Your task to perform on an android device: Clear the shopping cart on ebay.com. Add "asus rog" to the cart on ebay.com Image 0: 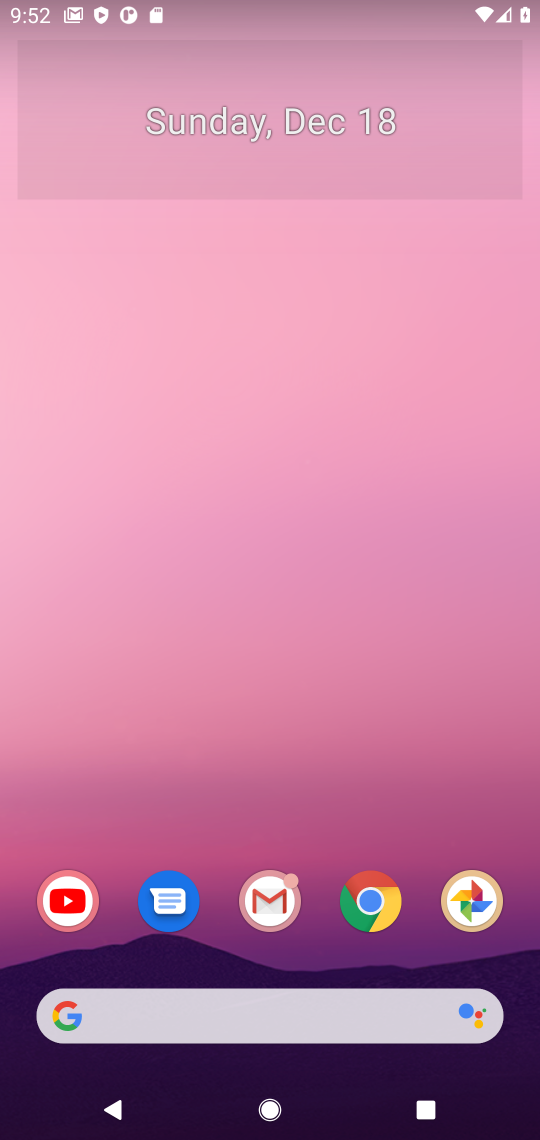
Step 0: click (391, 892)
Your task to perform on an android device: Clear the shopping cart on ebay.com. Add "asus rog" to the cart on ebay.com Image 1: 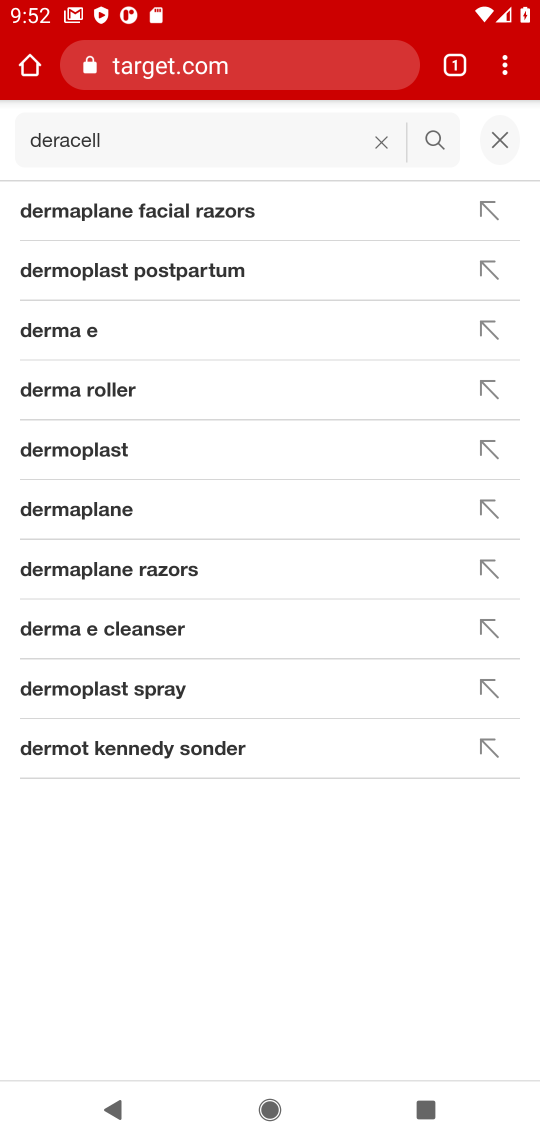
Step 1: click (234, 69)
Your task to perform on an android device: Clear the shopping cart on ebay.com. Add "asus rog" to the cart on ebay.com Image 2: 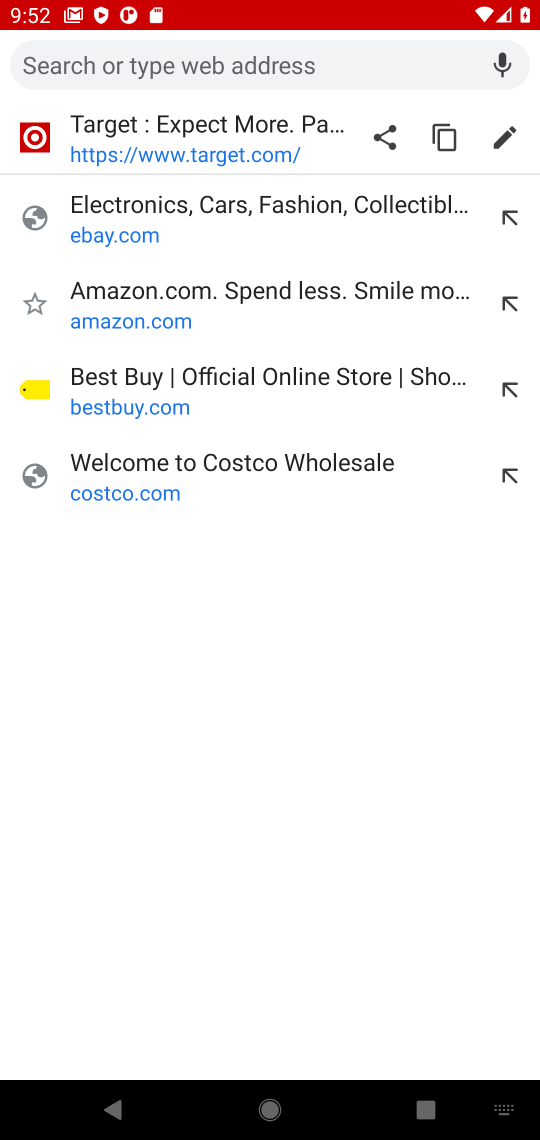
Step 2: click (198, 253)
Your task to perform on an android device: Clear the shopping cart on ebay.com. Add "asus rog" to the cart on ebay.com Image 3: 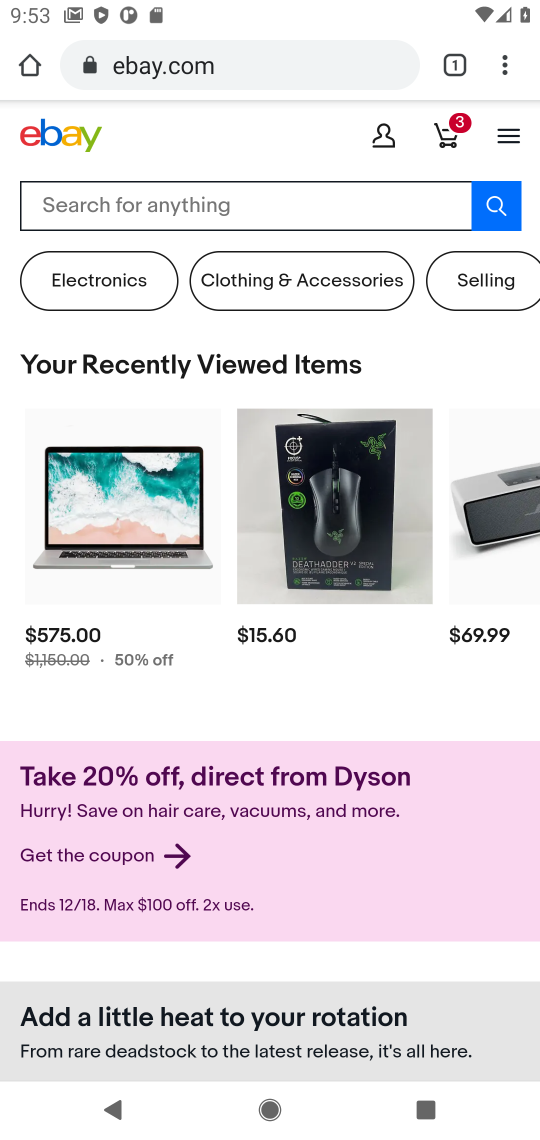
Step 3: click (447, 130)
Your task to perform on an android device: Clear the shopping cart on ebay.com. Add "asus rog" to the cart on ebay.com Image 4: 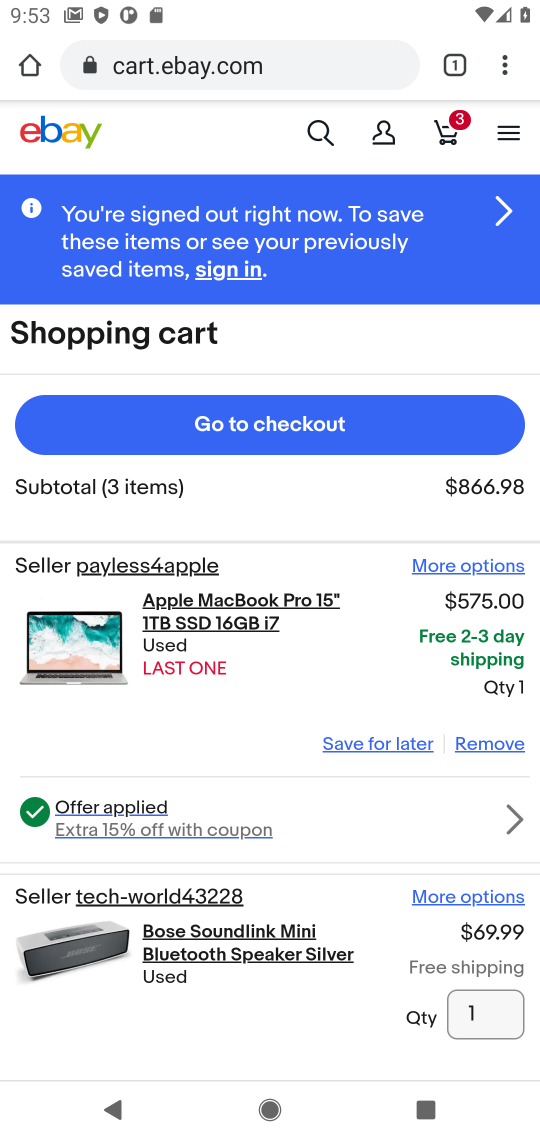
Step 4: click (481, 740)
Your task to perform on an android device: Clear the shopping cart on ebay.com. Add "asus rog" to the cart on ebay.com Image 5: 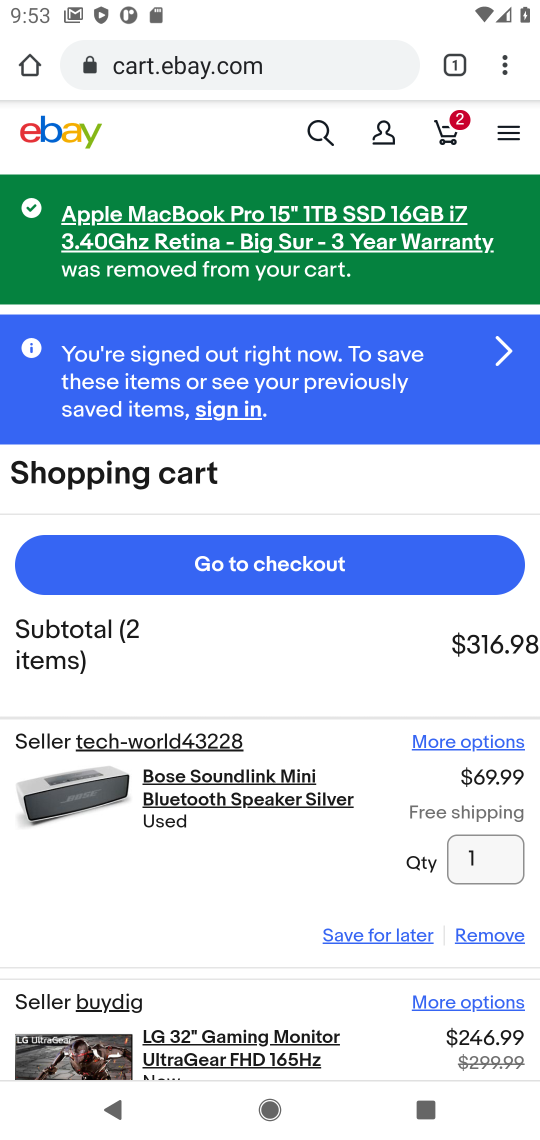
Step 5: click (477, 930)
Your task to perform on an android device: Clear the shopping cart on ebay.com. Add "asus rog" to the cart on ebay.com Image 6: 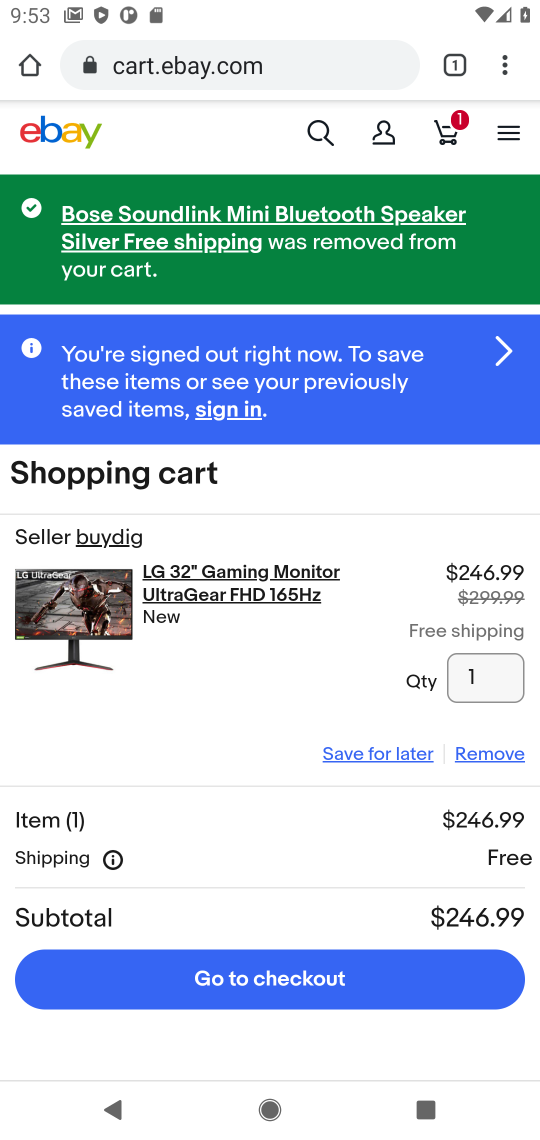
Step 6: click (486, 750)
Your task to perform on an android device: Clear the shopping cart on ebay.com. Add "asus rog" to the cart on ebay.com Image 7: 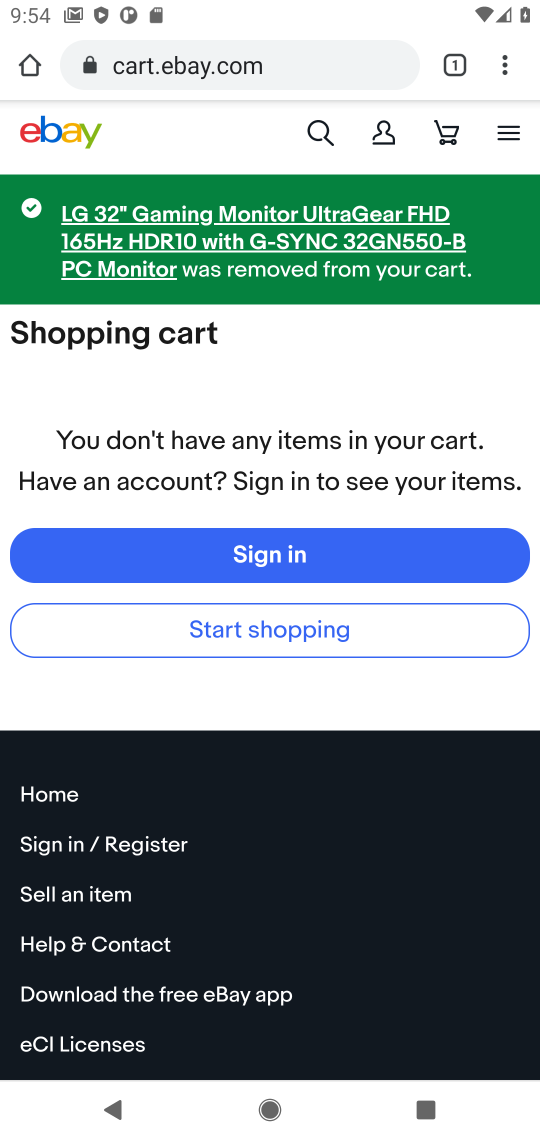
Step 7: click (333, 127)
Your task to perform on an android device: Clear the shopping cart on ebay.com. Add "asus rog" to the cart on ebay.com Image 8: 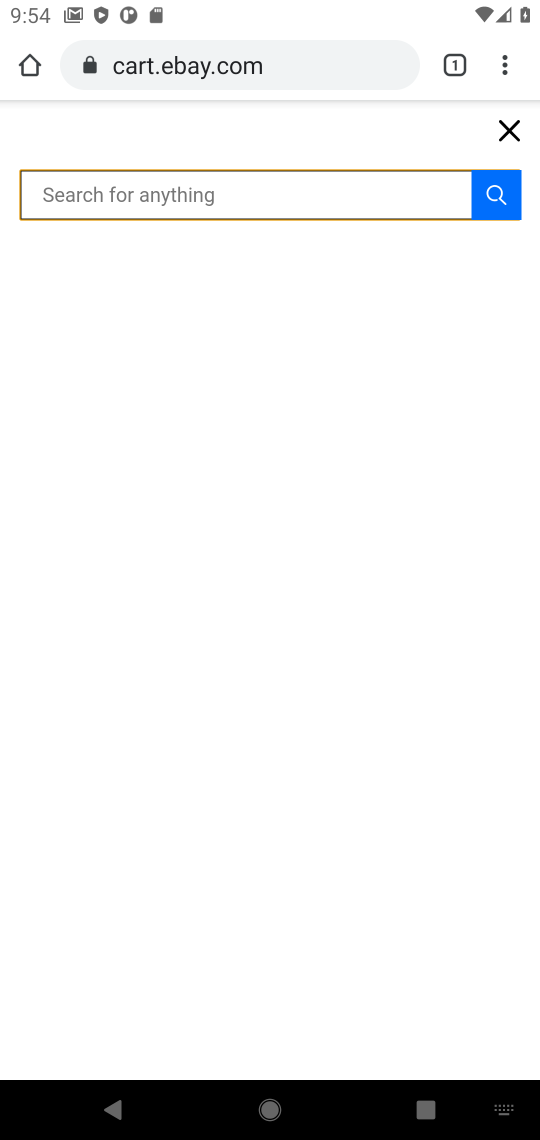
Step 8: type "asus org"
Your task to perform on an android device: Clear the shopping cart on ebay.com. Add "asus rog" to the cart on ebay.com Image 9: 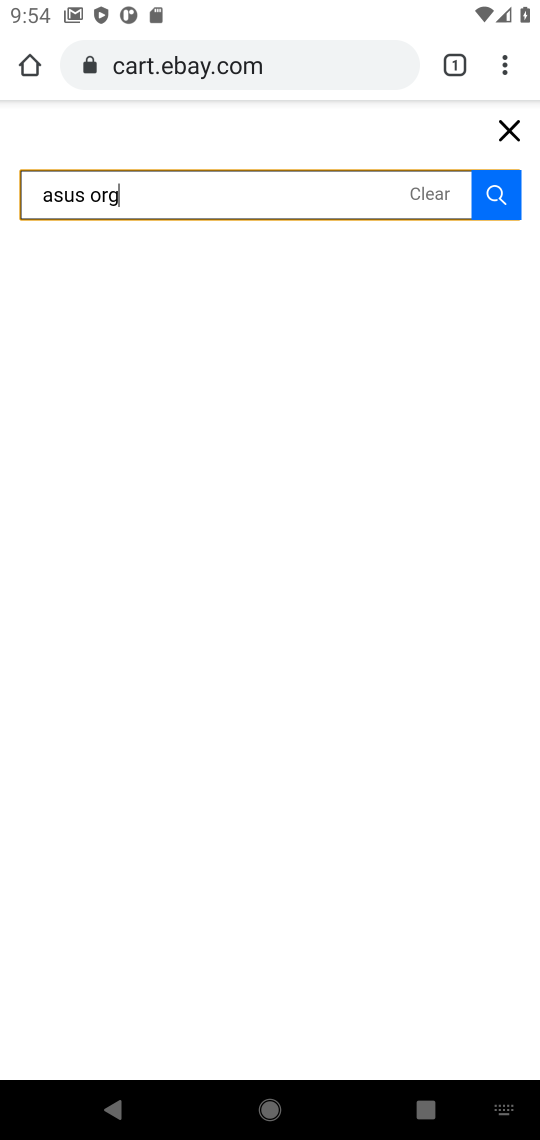
Step 9: click (505, 194)
Your task to perform on an android device: Clear the shopping cart on ebay.com. Add "asus rog" to the cart on ebay.com Image 10: 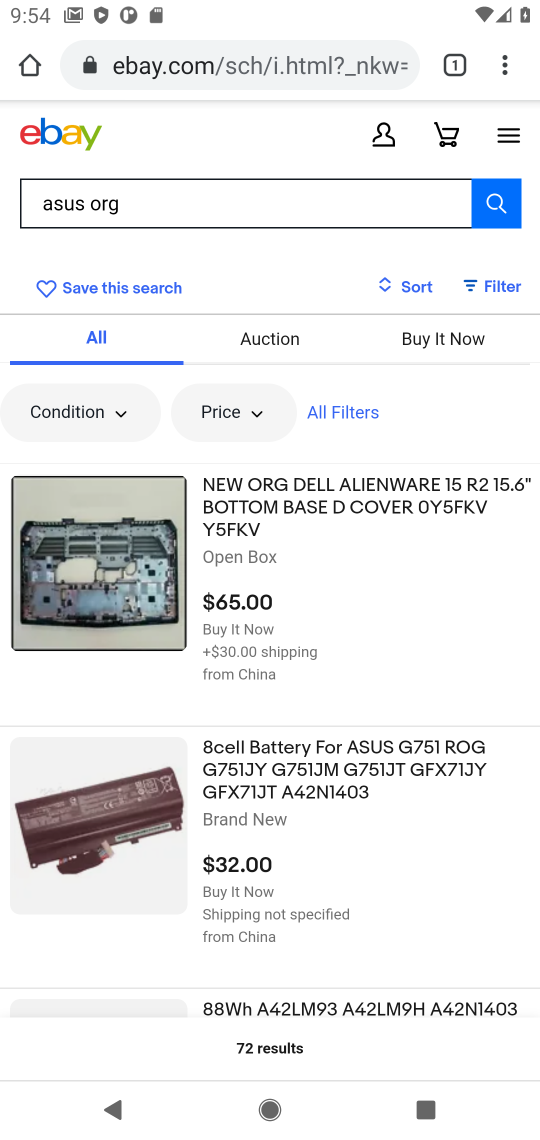
Step 10: click (177, 184)
Your task to perform on an android device: Clear the shopping cart on ebay.com. Add "asus rog" to the cart on ebay.com Image 11: 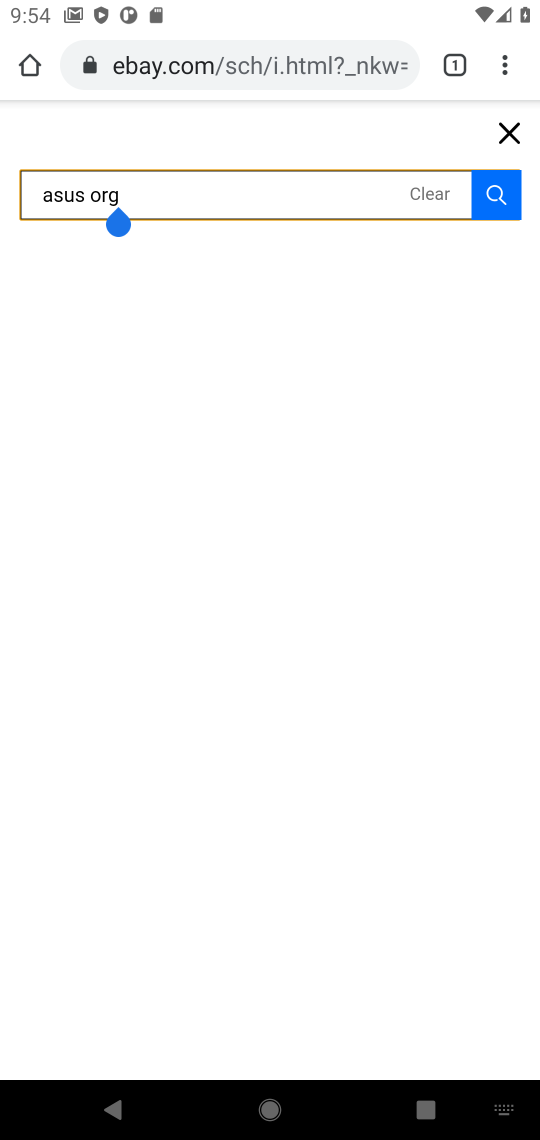
Step 11: click (435, 190)
Your task to perform on an android device: Clear the shopping cart on ebay.com. Add "asus rog" to the cart on ebay.com Image 12: 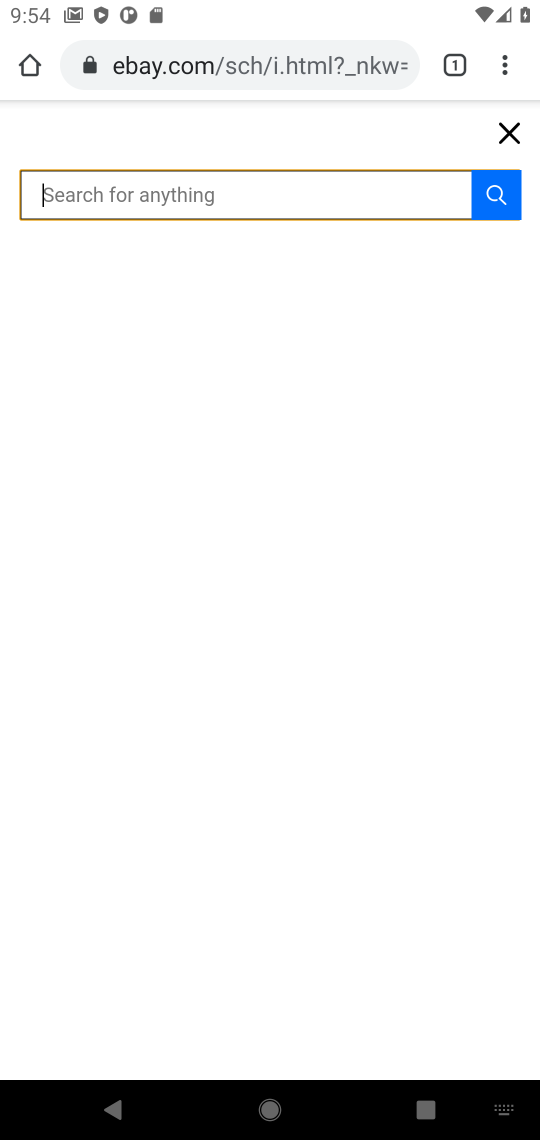
Step 12: type "asus rog"
Your task to perform on an android device: Clear the shopping cart on ebay.com. Add "asus rog" to the cart on ebay.com Image 13: 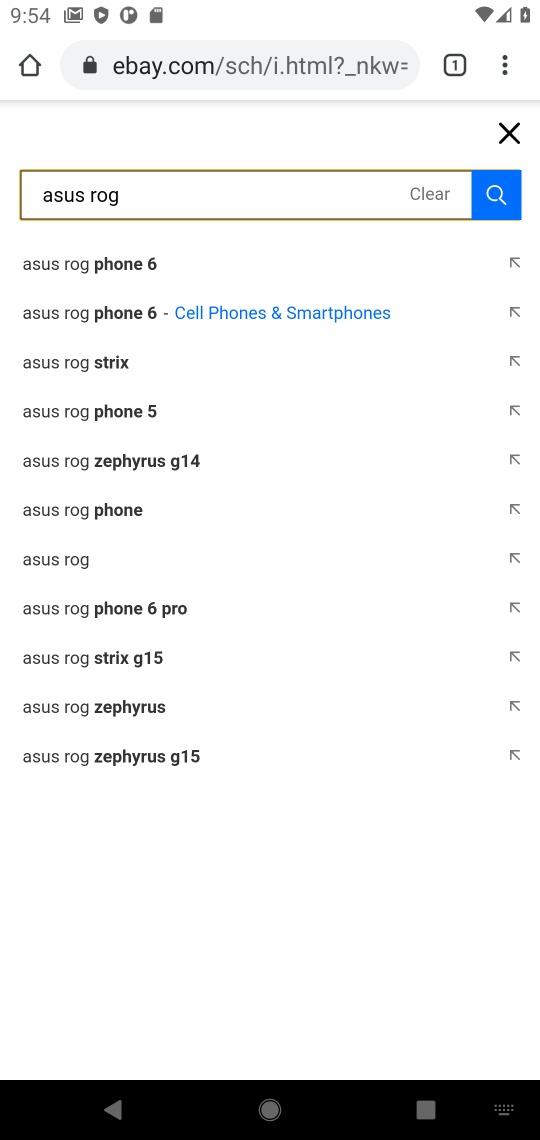
Step 13: click (479, 206)
Your task to perform on an android device: Clear the shopping cart on ebay.com. Add "asus rog" to the cart on ebay.com Image 14: 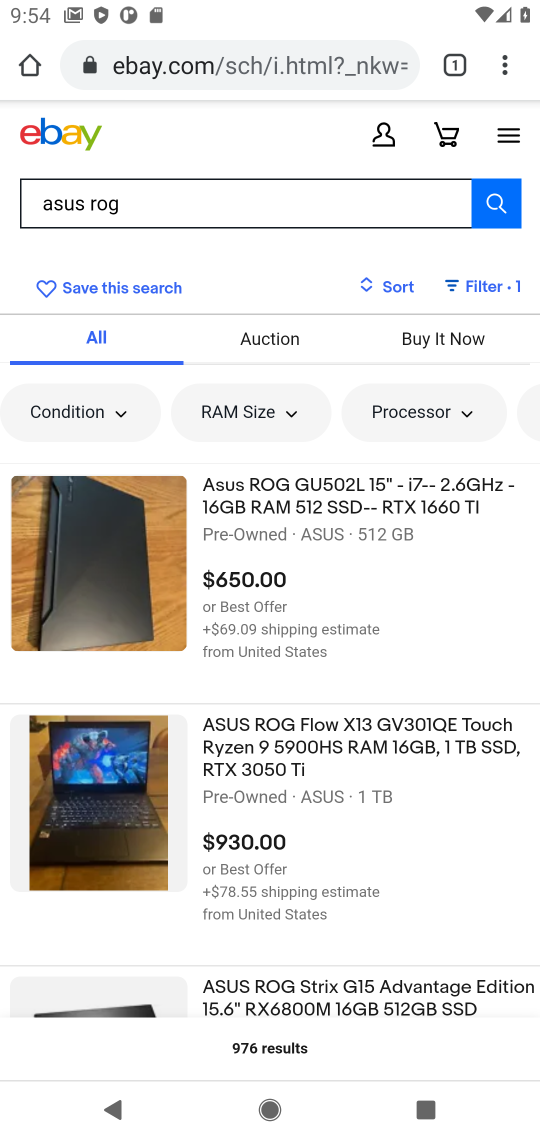
Step 14: click (236, 552)
Your task to perform on an android device: Clear the shopping cart on ebay.com. Add "asus rog" to the cart on ebay.com Image 15: 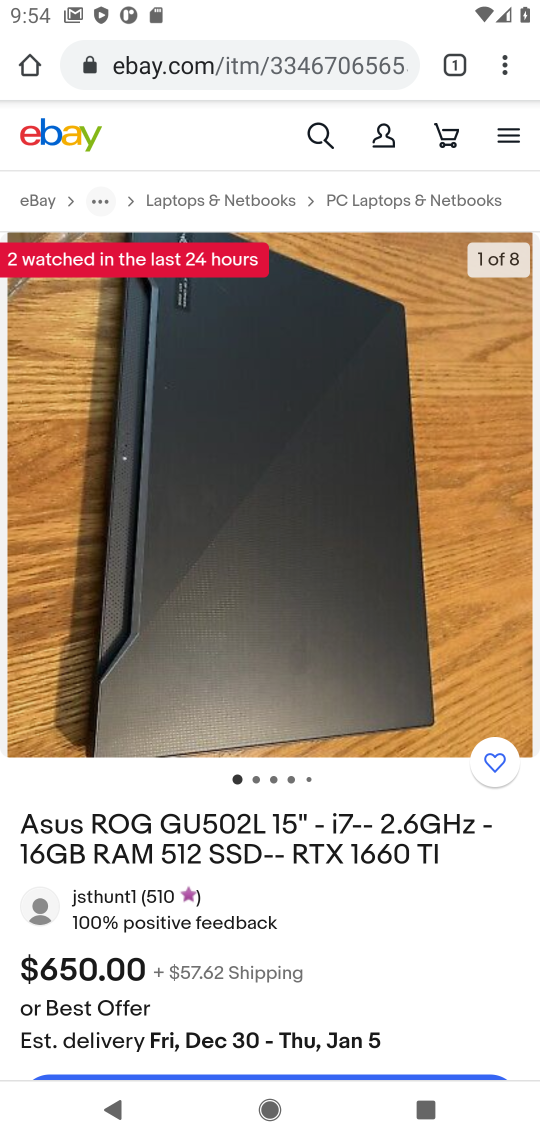
Step 15: click (405, 822)
Your task to perform on an android device: Clear the shopping cart on ebay.com. Add "asus rog" to the cart on ebay.com Image 16: 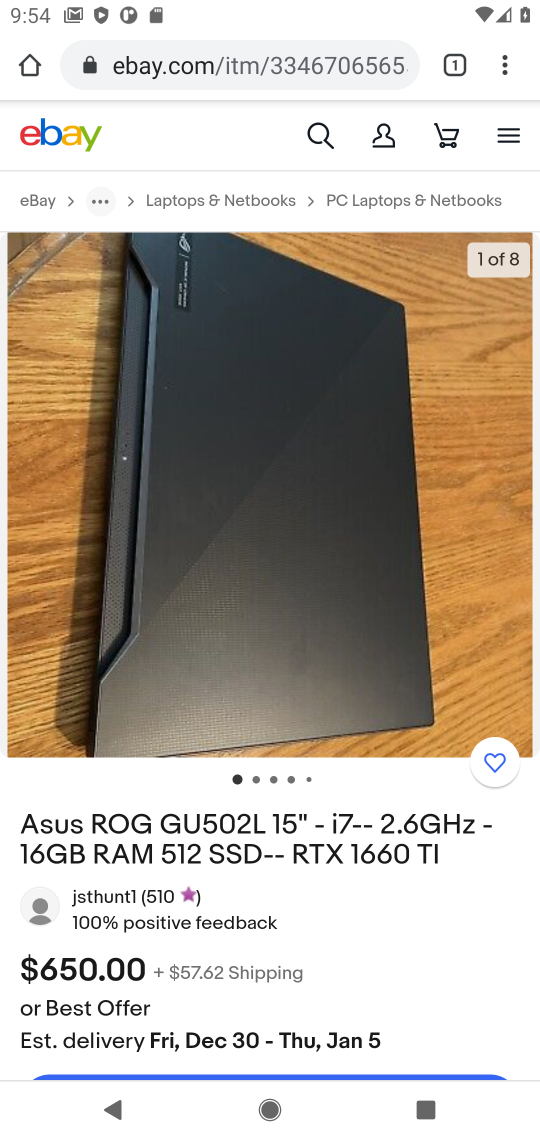
Step 16: drag from (271, 972) to (271, 581)
Your task to perform on an android device: Clear the shopping cart on ebay.com. Add "asus rog" to the cart on ebay.com Image 17: 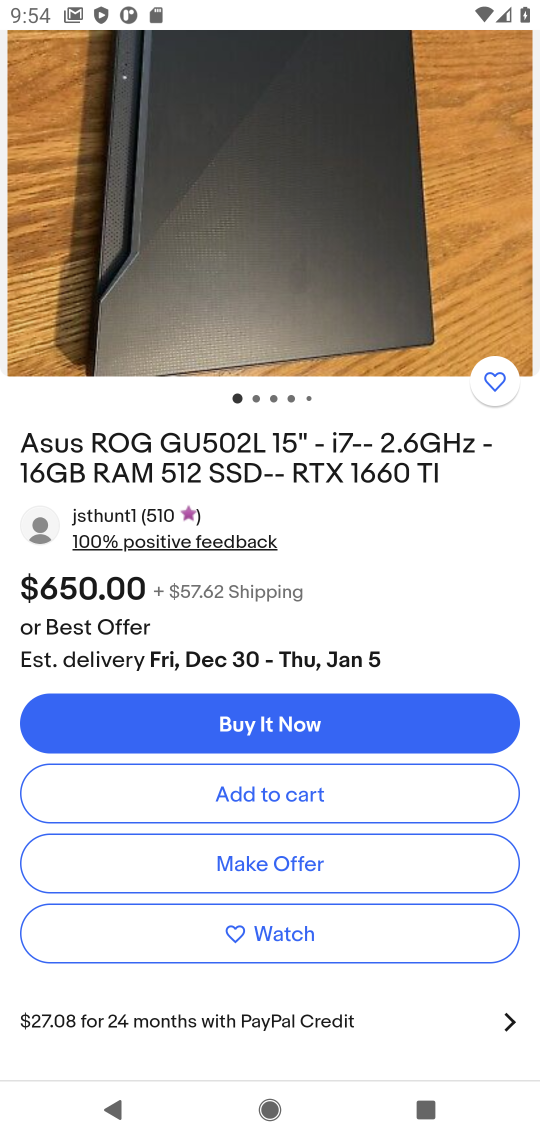
Step 17: click (275, 829)
Your task to perform on an android device: Clear the shopping cart on ebay.com. Add "asus rog" to the cart on ebay.com Image 18: 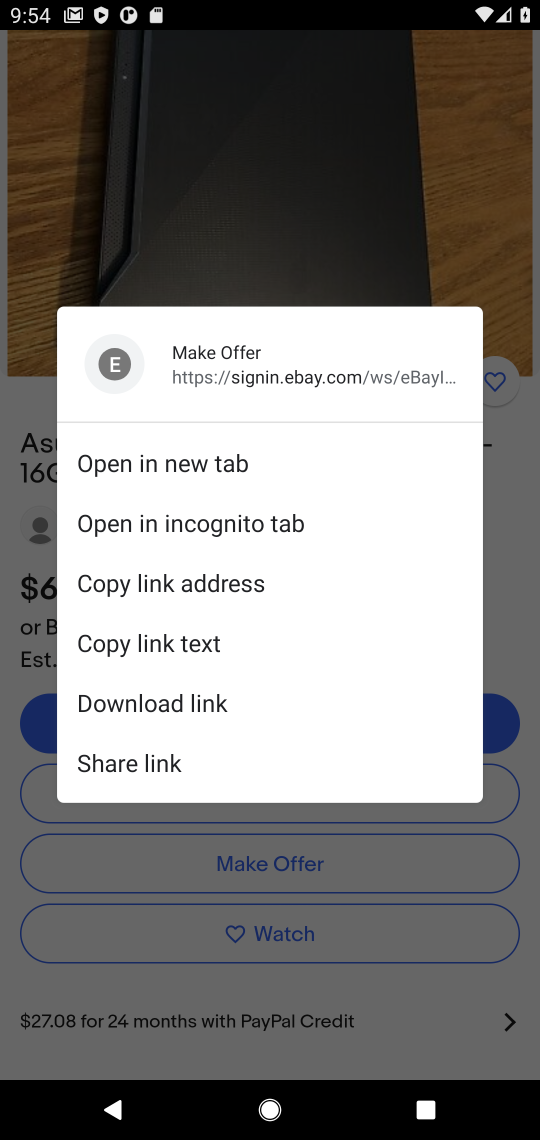
Step 18: click (366, 939)
Your task to perform on an android device: Clear the shopping cart on ebay.com. Add "asus rog" to the cart on ebay.com Image 19: 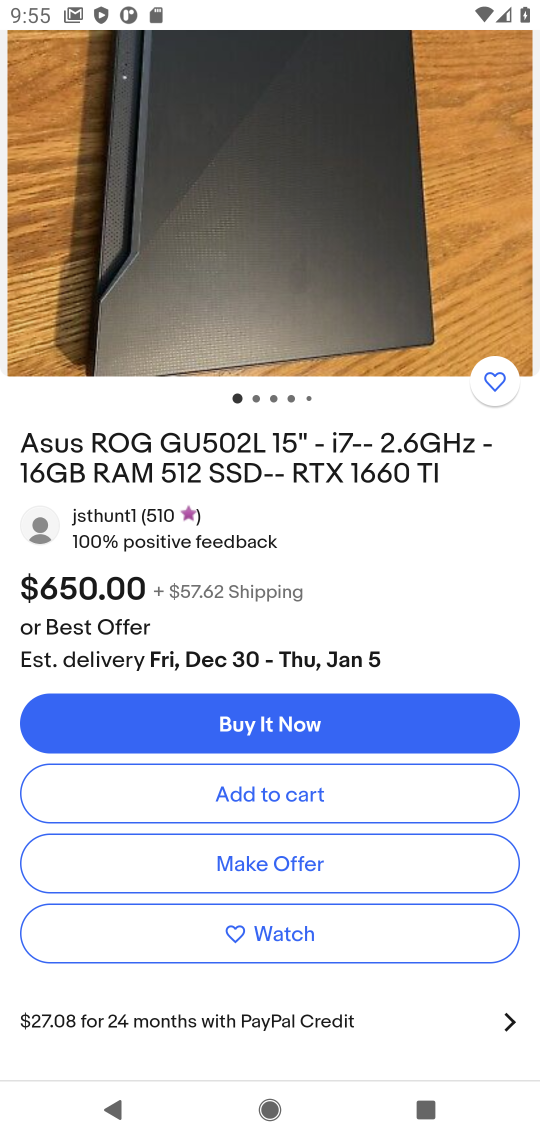
Step 19: click (295, 810)
Your task to perform on an android device: Clear the shopping cart on ebay.com. Add "asus rog" to the cart on ebay.com Image 20: 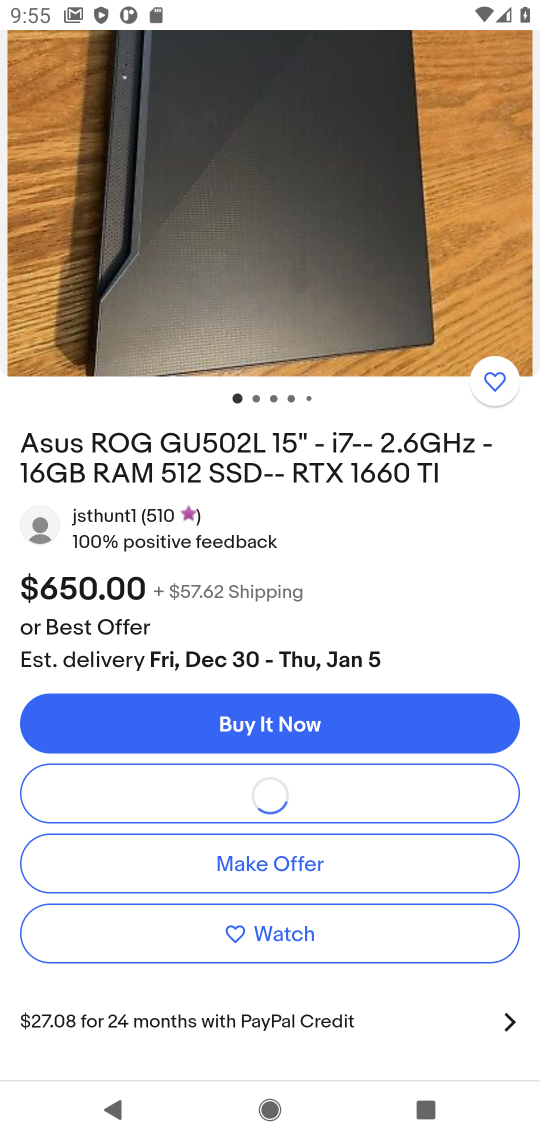
Step 20: task complete